Your task to perform on an android device: Open internet settings Image 0: 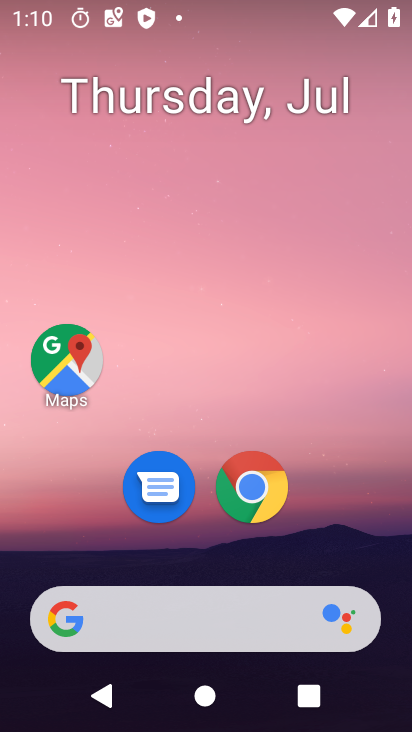
Step 0: drag from (242, 624) to (194, 163)
Your task to perform on an android device: Open internet settings Image 1: 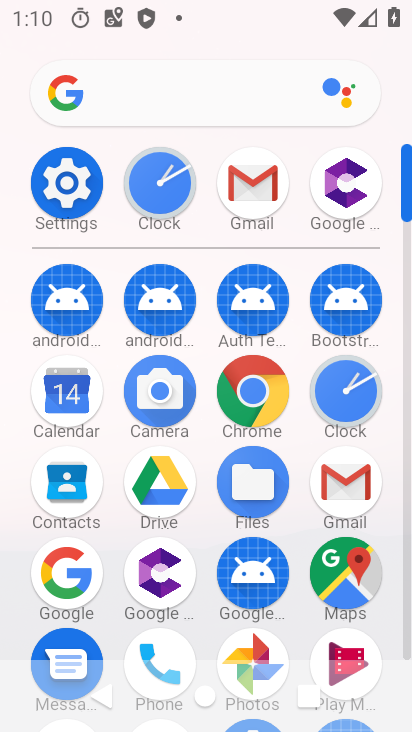
Step 1: click (90, 197)
Your task to perform on an android device: Open internet settings Image 2: 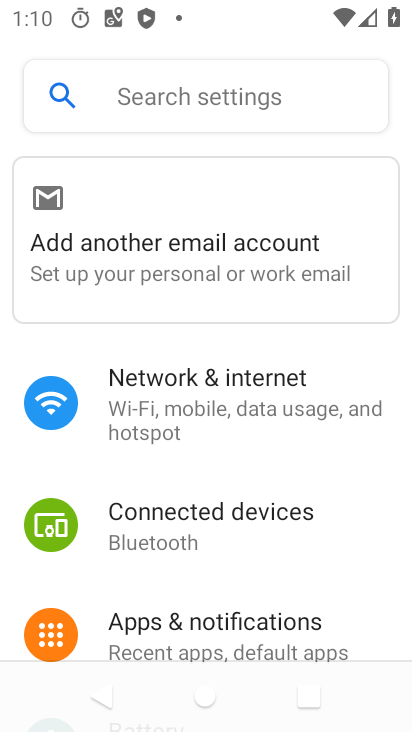
Step 2: click (252, 410)
Your task to perform on an android device: Open internet settings Image 3: 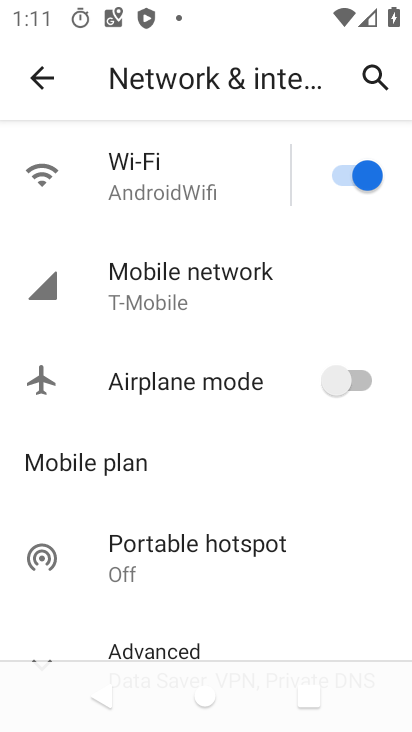
Step 3: click (179, 302)
Your task to perform on an android device: Open internet settings Image 4: 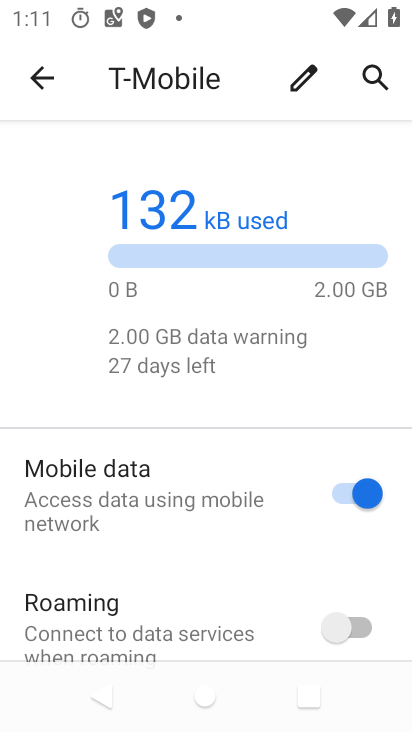
Step 4: task complete